Your task to perform on an android device: open wifi settings Image 0: 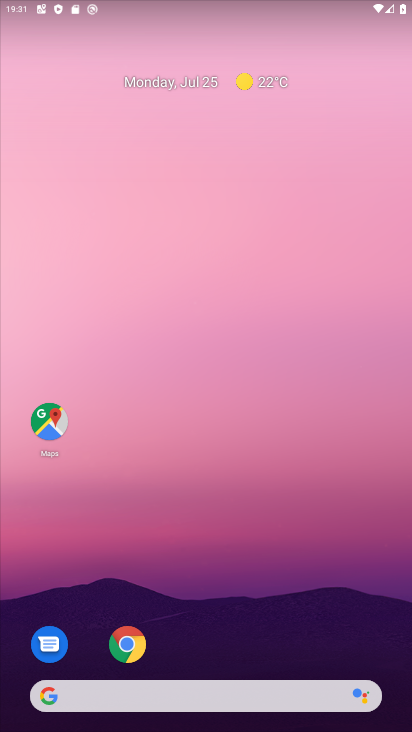
Step 0: press home button
Your task to perform on an android device: open wifi settings Image 1: 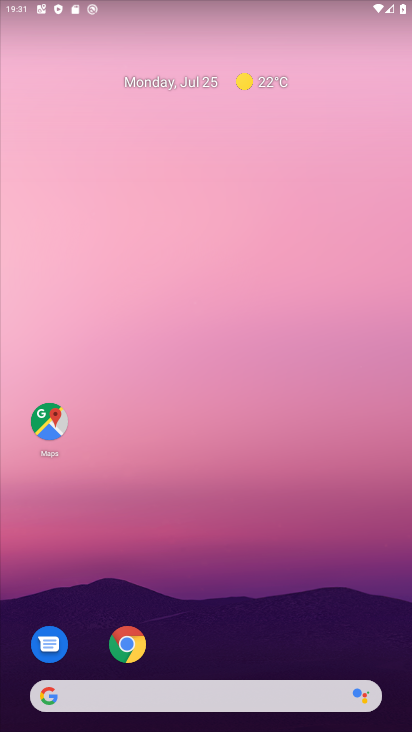
Step 1: drag from (227, 663) to (217, 0)
Your task to perform on an android device: open wifi settings Image 2: 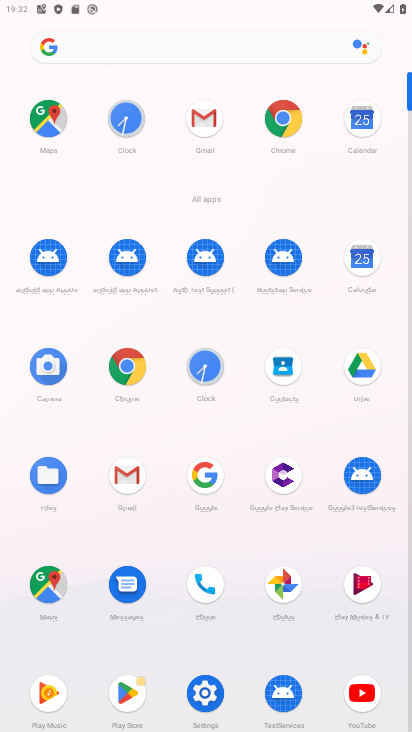
Step 2: click (206, 689)
Your task to perform on an android device: open wifi settings Image 3: 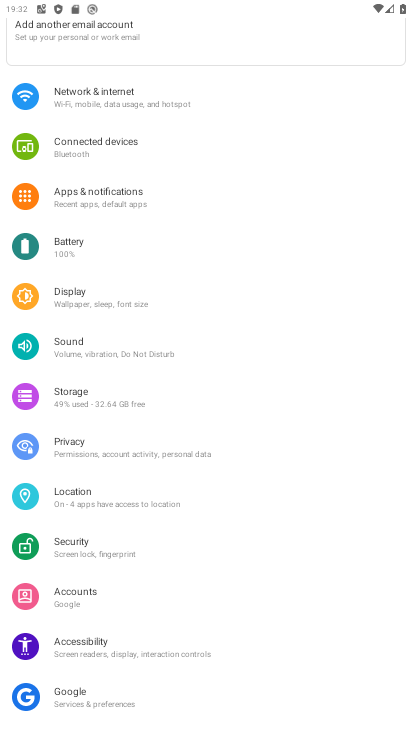
Step 3: click (140, 89)
Your task to perform on an android device: open wifi settings Image 4: 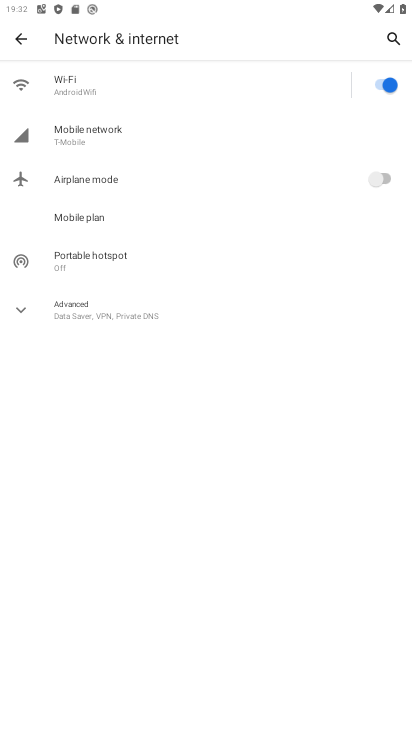
Step 4: click (131, 83)
Your task to perform on an android device: open wifi settings Image 5: 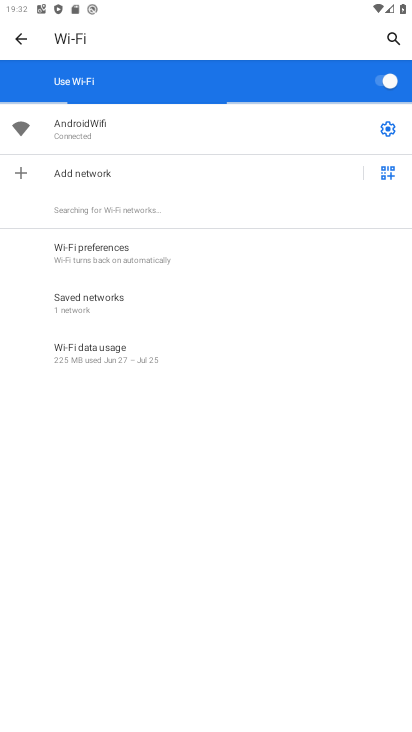
Step 5: task complete